Your task to perform on an android device: set the stopwatch Image 0: 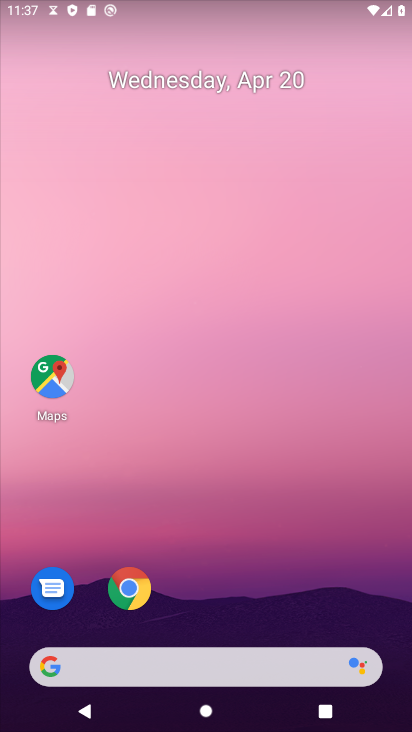
Step 0: drag from (217, 615) to (245, 73)
Your task to perform on an android device: set the stopwatch Image 1: 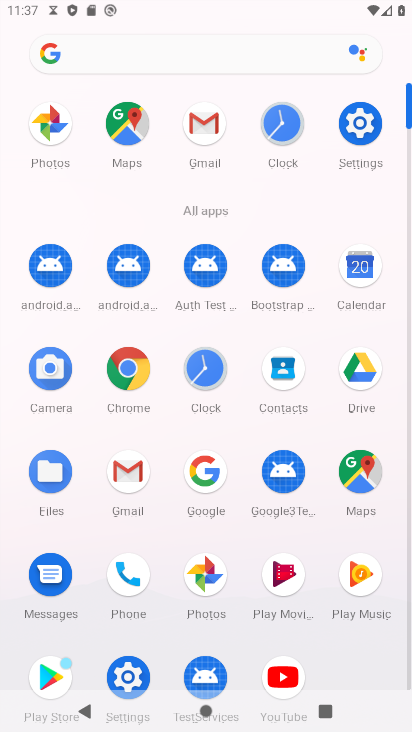
Step 1: click (203, 362)
Your task to perform on an android device: set the stopwatch Image 2: 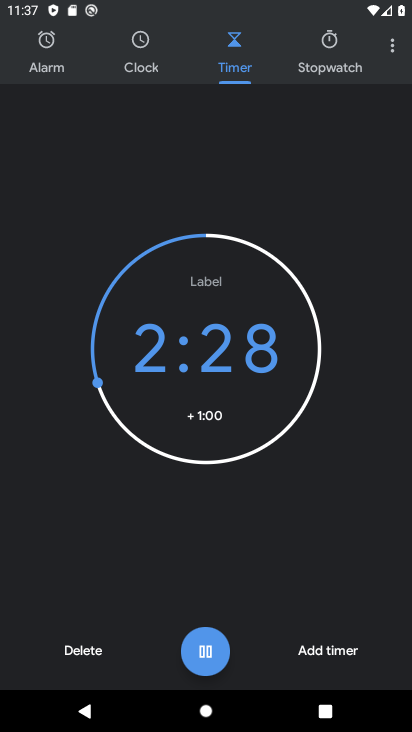
Step 2: click (98, 645)
Your task to perform on an android device: set the stopwatch Image 3: 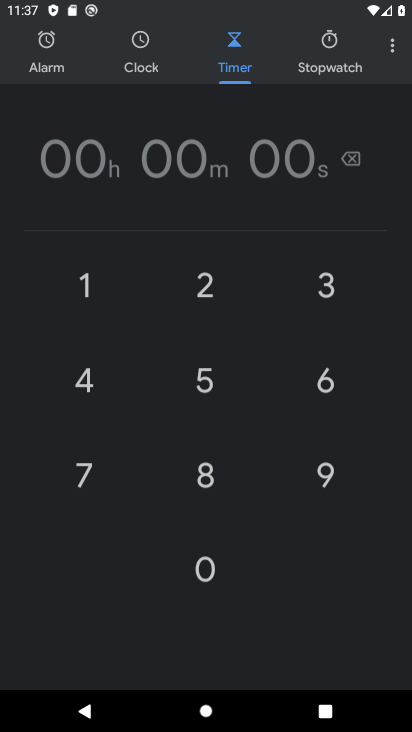
Step 3: click (324, 36)
Your task to perform on an android device: set the stopwatch Image 4: 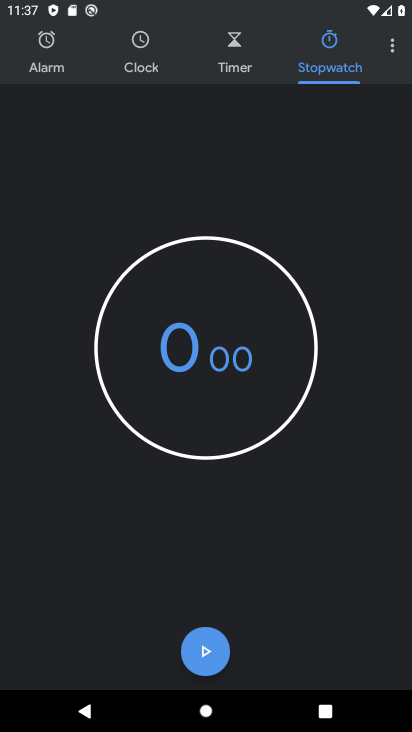
Step 4: click (206, 648)
Your task to perform on an android device: set the stopwatch Image 5: 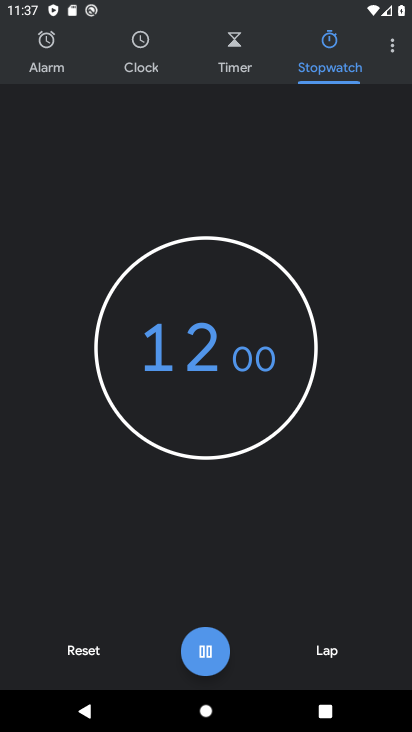
Step 5: task complete